Your task to perform on an android device: Is it going to rain today? Image 0: 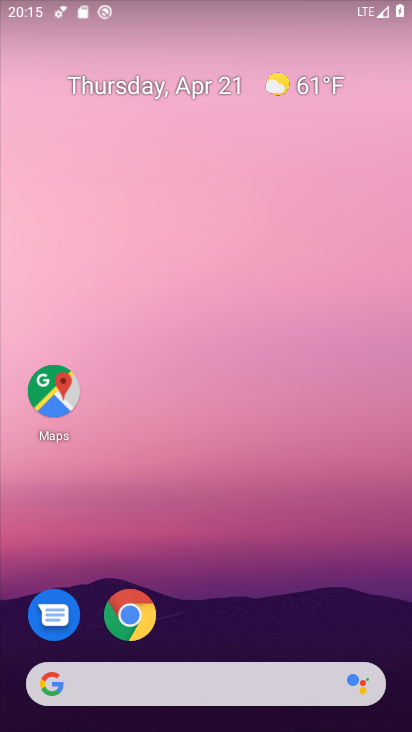
Step 0: drag from (196, 568) to (229, 119)
Your task to perform on an android device: Is it going to rain today? Image 1: 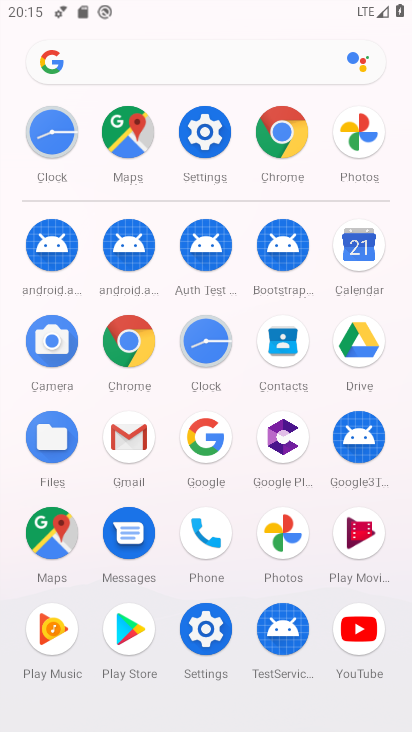
Step 1: click (132, 350)
Your task to perform on an android device: Is it going to rain today? Image 2: 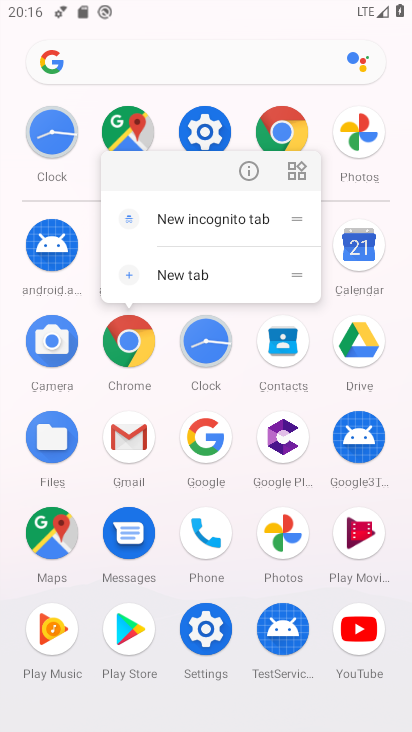
Step 2: click (249, 166)
Your task to perform on an android device: Is it going to rain today? Image 3: 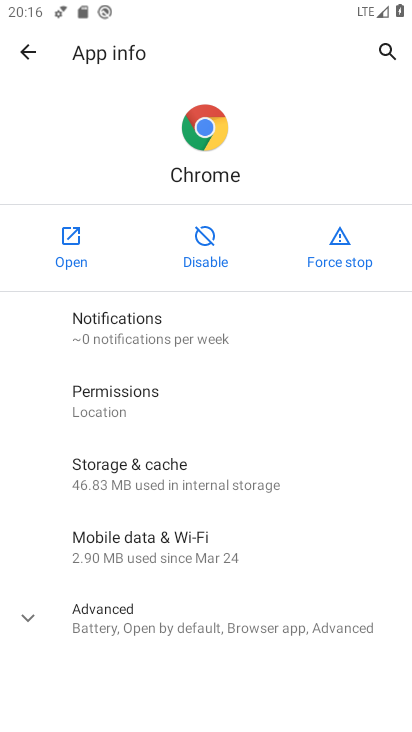
Step 3: click (63, 238)
Your task to perform on an android device: Is it going to rain today? Image 4: 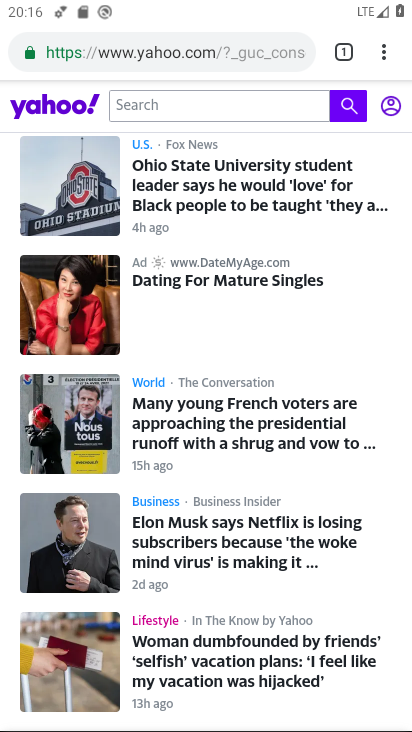
Step 4: click (145, 47)
Your task to perform on an android device: Is it going to rain today? Image 5: 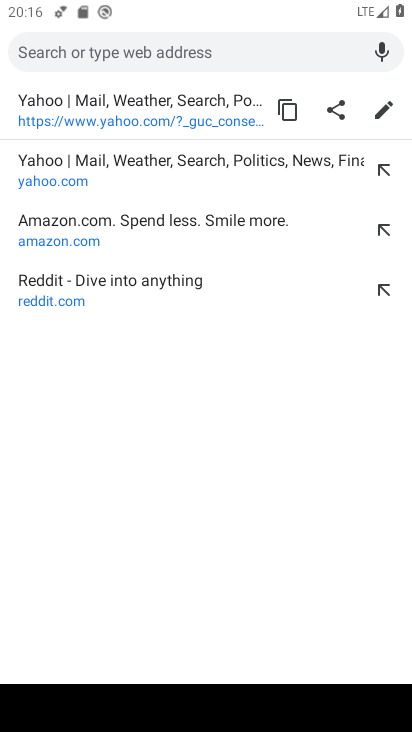
Step 5: type "rain today"
Your task to perform on an android device: Is it going to rain today? Image 6: 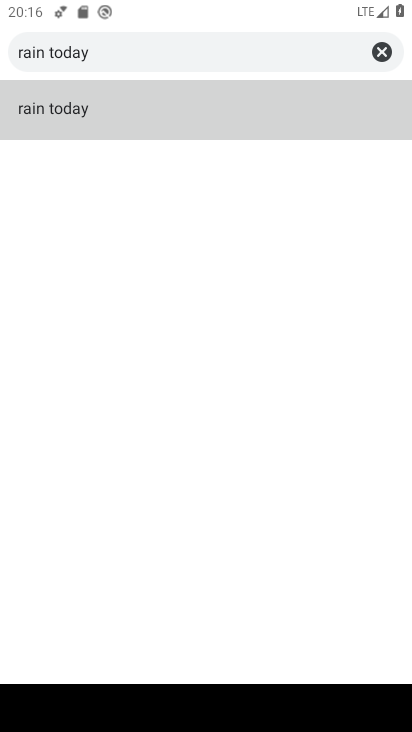
Step 6: click (61, 110)
Your task to perform on an android device: Is it going to rain today? Image 7: 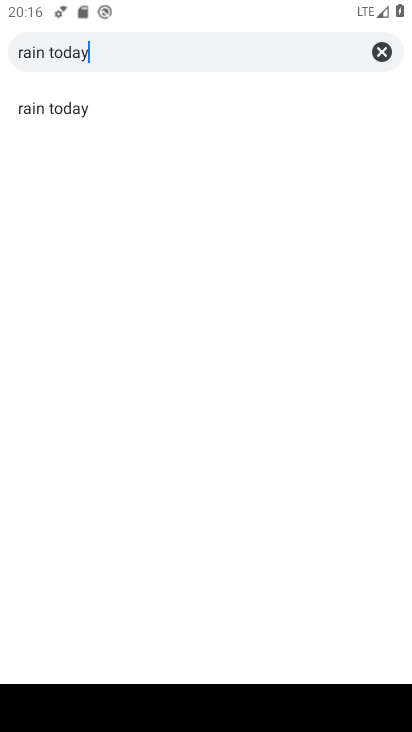
Step 7: click (105, 112)
Your task to perform on an android device: Is it going to rain today? Image 8: 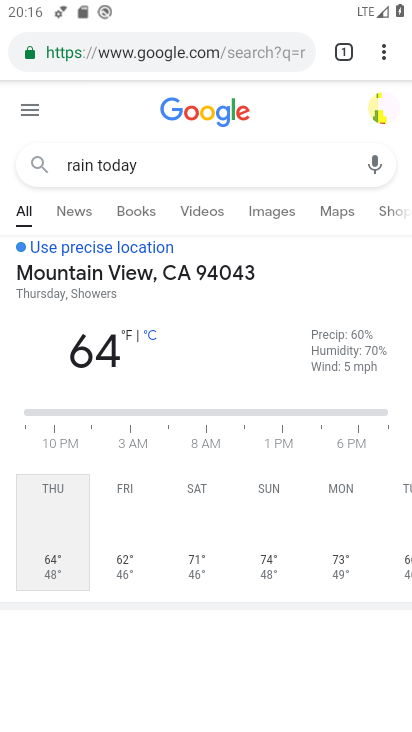
Step 8: task complete